Your task to perform on an android device: install app "Upside-Cash back on gas & food" Image 0: 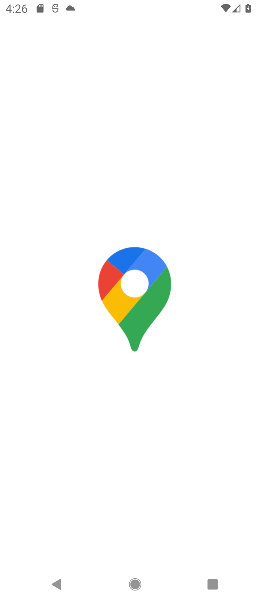
Step 0: press home button
Your task to perform on an android device: install app "Upside-Cash back on gas & food" Image 1: 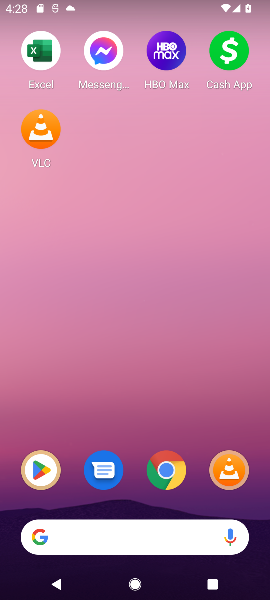
Step 1: click (40, 472)
Your task to perform on an android device: install app "Upside-Cash back on gas & food" Image 2: 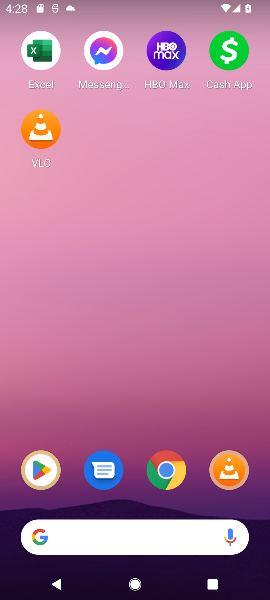
Step 2: click (40, 472)
Your task to perform on an android device: install app "Upside-Cash back on gas & food" Image 3: 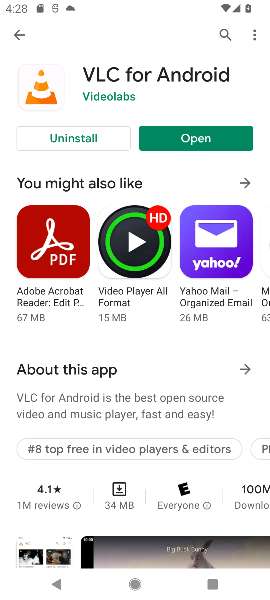
Step 3: click (227, 34)
Your task to perform on an android device: install app "Upside-Cash back on gas & food" Image 4: 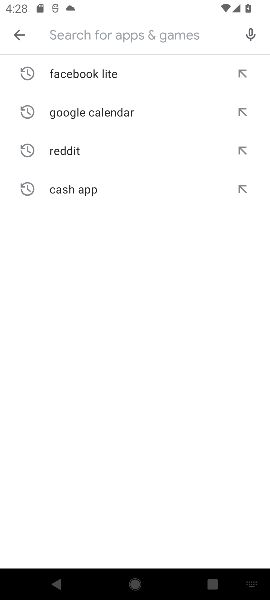
Step 4: type "Upside-Cash back on gas & food"
Your task to perform on an android device: install app "Upside-Cash back on gas & food" Image 5: 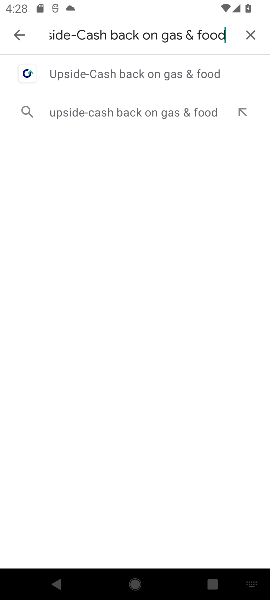
Step 5: click (164, 62)
Your task to perform on an android device: install app "Upside-Cash back on gas & food" Image 6: 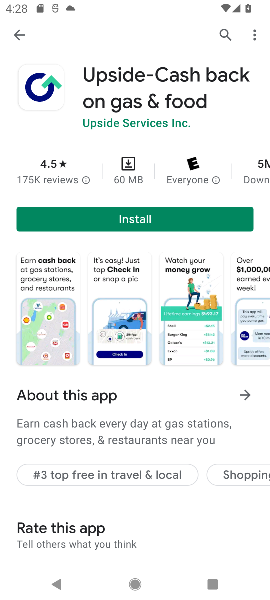
Step 6: click (198, 217)
Your task to perform on an android device: install app "Upside-Cash back on gas & food" Image 7: 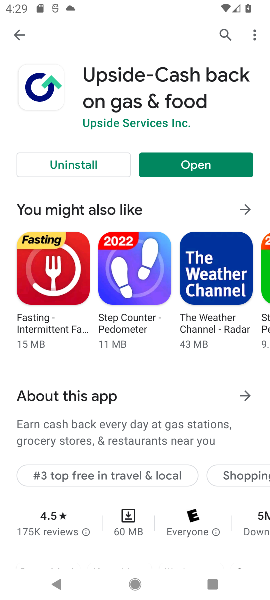
Step 7: task complete